Your task to perform on an android device: Open battery settings Image 0: 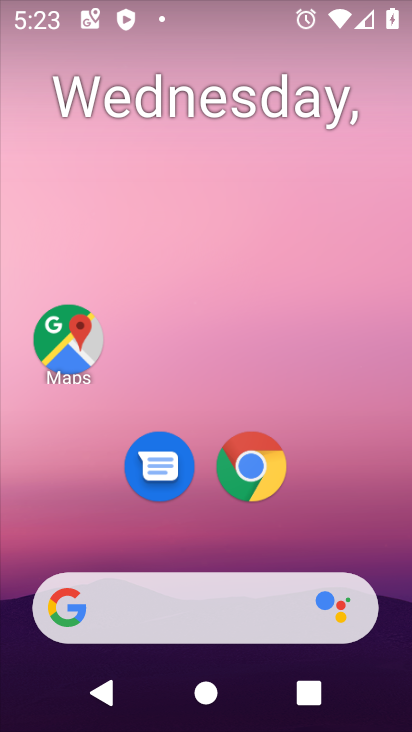
Step 0: drag from (344, 495) to (331, 135)
Your task to perform on an android device: Open battery settings Image 1: 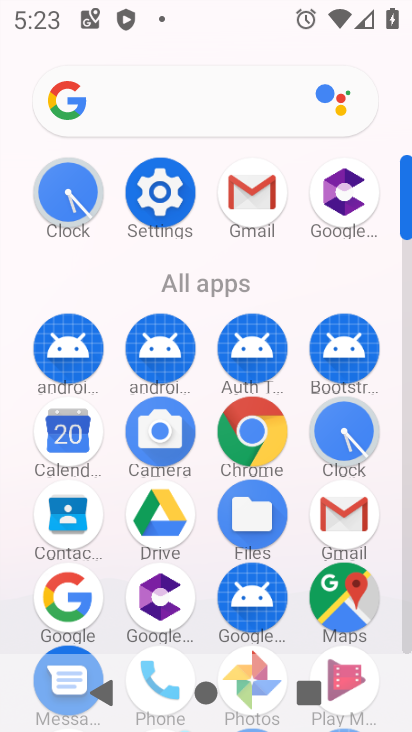
Step 1: click (164, 191)
Your task to perform on an android device: Open battery settings Image 2: 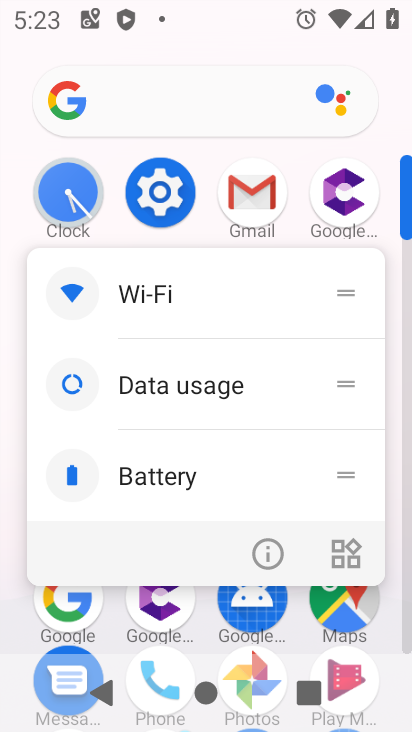
Step 2: click (160, 192)
Your task to perform on an android device: Open battery settings Image 3: 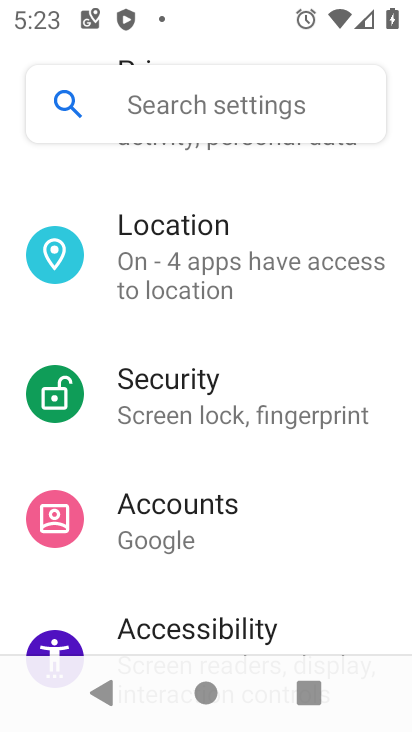
Step 3: drag from (320, 210) to (217, 546)
Your task to perform on an android device: Open battery settings Image 4: 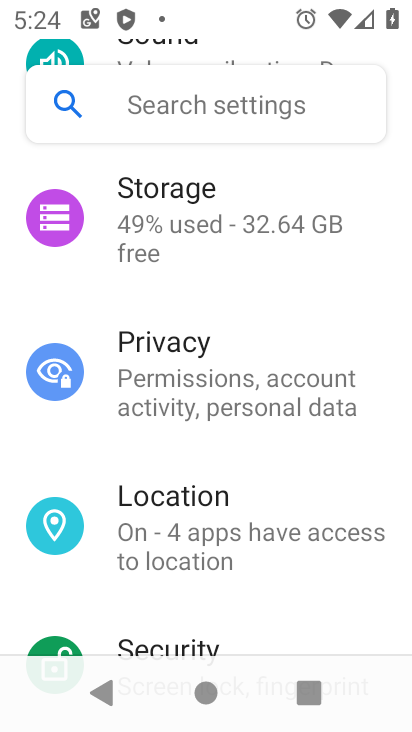
Step 4: drag from (261, 189) to (223, 531)
Your task to perform on an android device: Open battery settings Image 5: 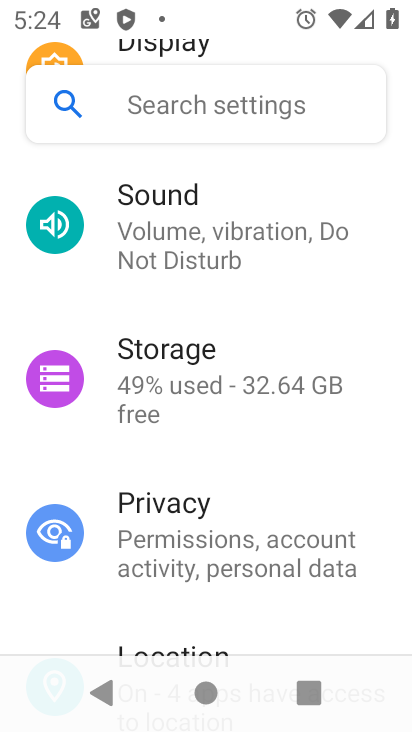
Step 5: drag from (239, 224) to (258, 531)
Your task to perform on an android device: Open battery settings Image 6: 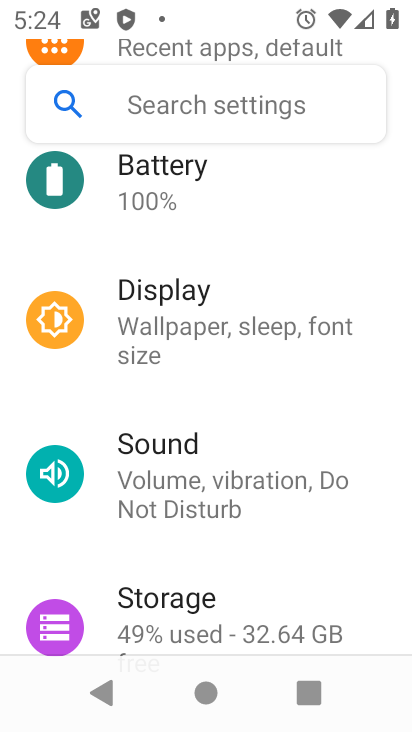
Step 6: click (153, 179)
Your task to perform on an android device: Open battery settings Image 7: 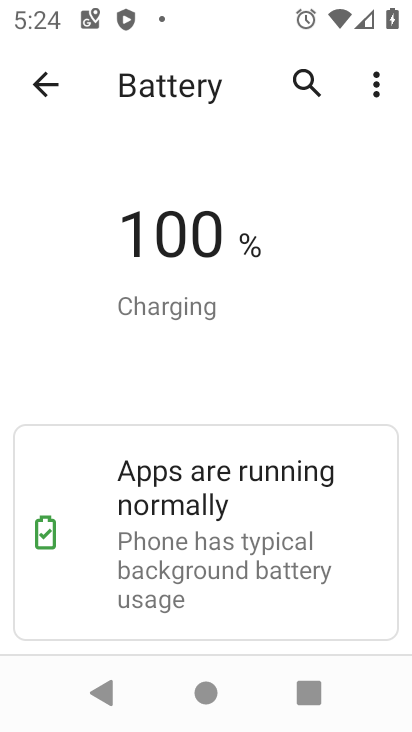
Step 7: task complete